Your task to perform on an android device: turn off javascript in the chrome app Image 0: 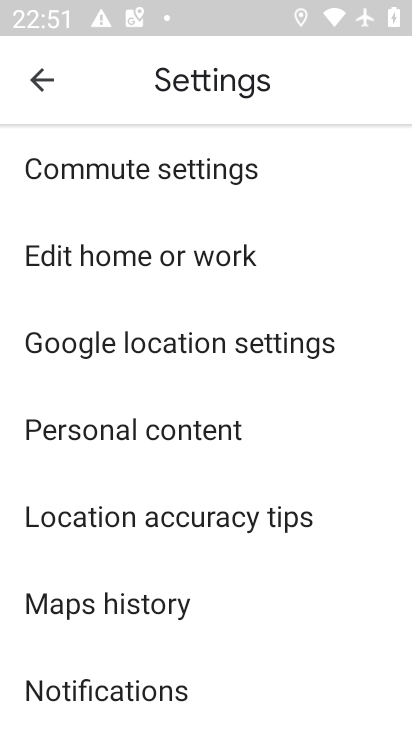
Step 0: press home button
Your task to perform on an android device: turn off javascript in the chrome app Image 1: 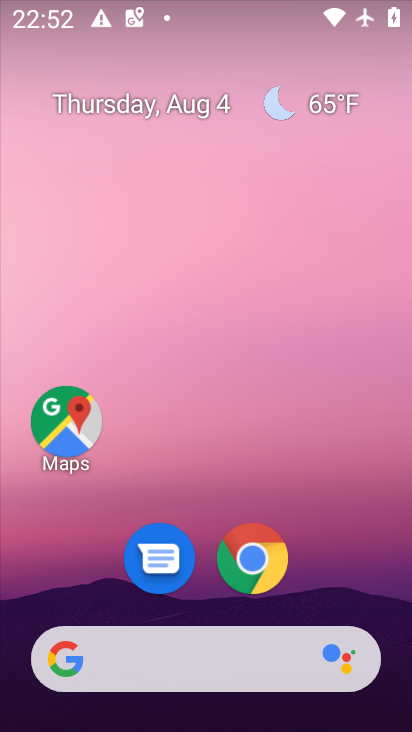
Step 1: drag from (367, 557) to (307, 68)
Your task to perform on an android device: turn off javascript in the chrome app Image 2: 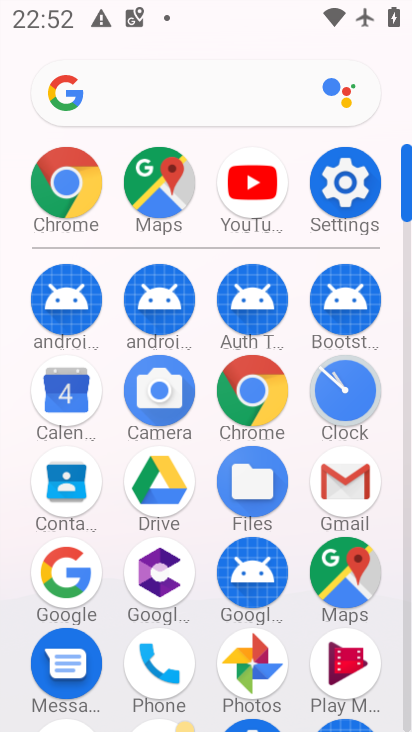
Step 2: click (66, 184)
Your task to perform on an android device: turn off javascript in the chrome app Image 3: 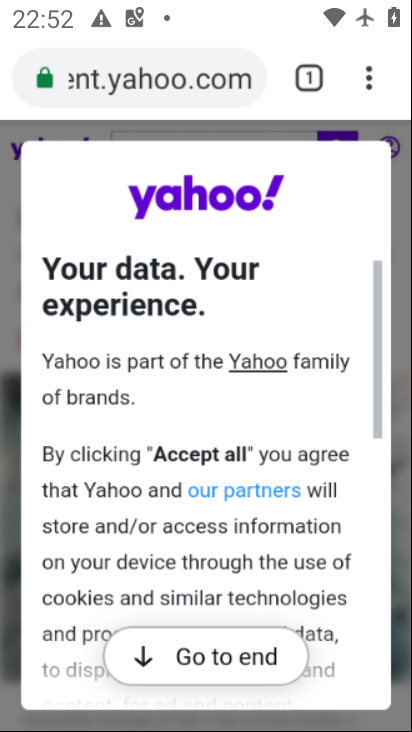
Step 3: click (370, 80)
Your task to perform on an android device: turn off javascript in the chrome app Image 4: 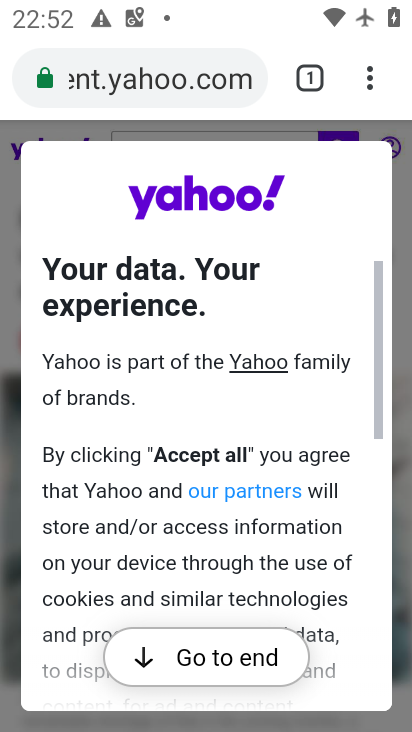
Step 4: drag from (370, 73) to (199, 619)
Your task to perform on an android device: turn off javascript in the chrome app Image 5: 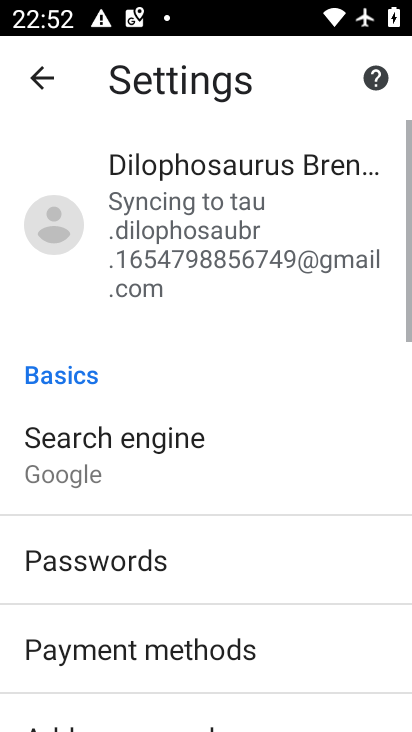
Step 5: drag from (196, 581) to (225, 135)
Your task to perform on an android device: turn off javascript in the chrome app Image 6: 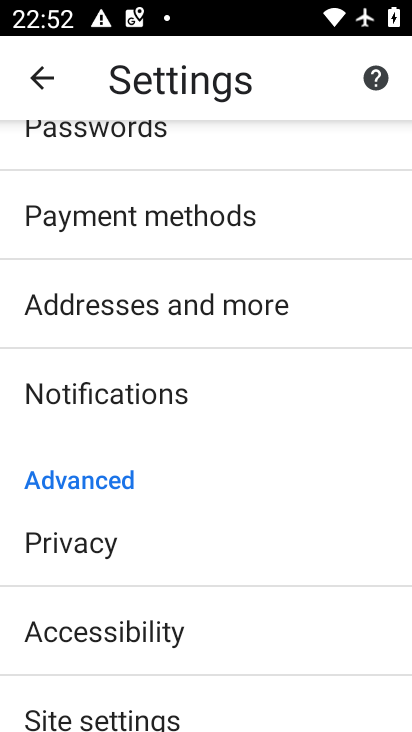
Step 6: drag from (176, 542) to (252, 204)
Your task to perform on an android device: turn off javascript in the chrome app Image 7: 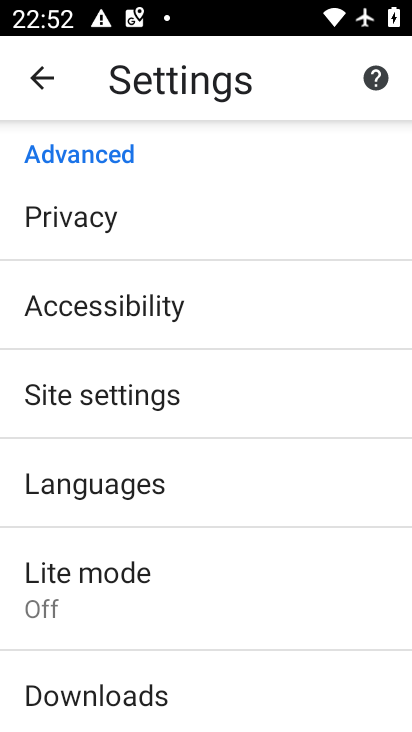
Step 7: click (158, 396)
Your task to perform on an android device: turn off javascript in the chrome app Image 8: 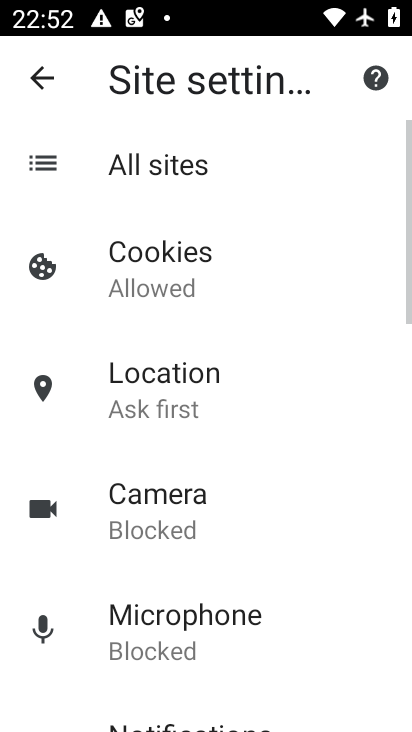
Step 8: drag from (288, 556) to (263, 120)
Your task to perform on an android device: turn off javascript in the chrome app Image 9: 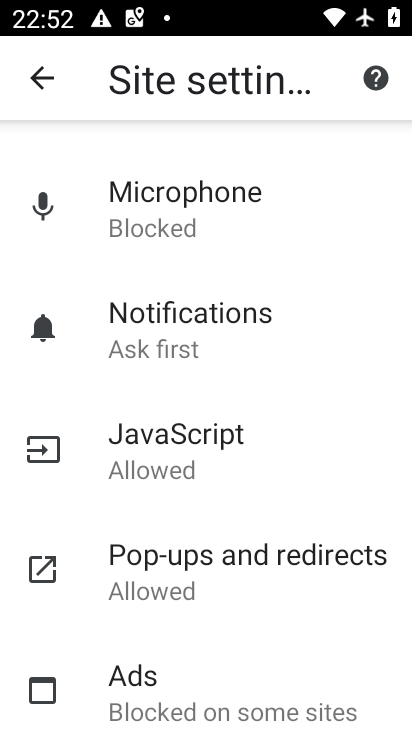
Step 9: click (240, 462)
Your task to perform on an android device: turn off javascript in the chrome app Image 10: 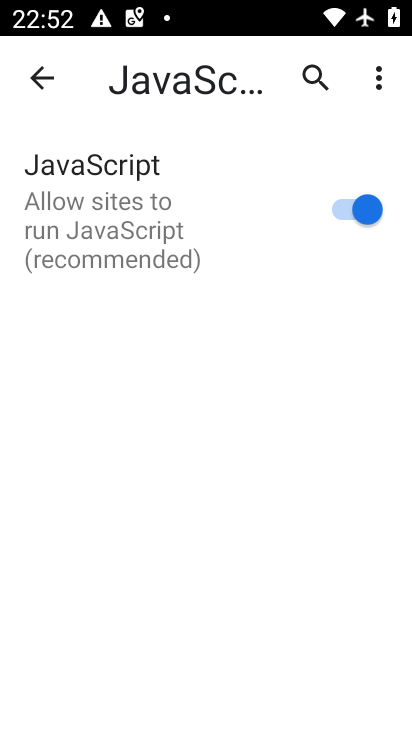
Step 10: click (345, 202)
Your task to perform on an android device: turn off javascript in the chrome app Image 11: 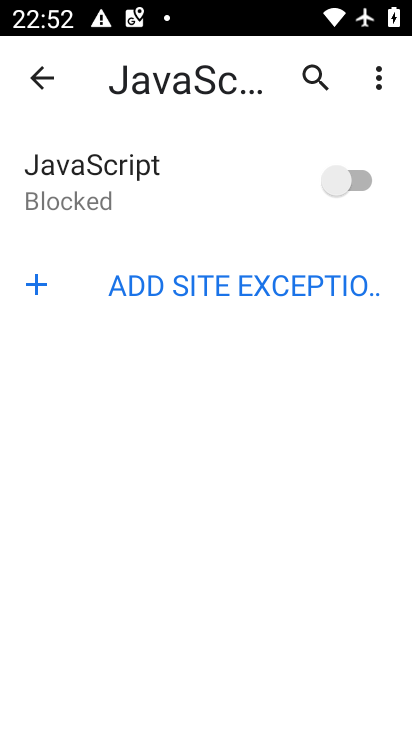
Step 11: task complete